Your task to perform on an android device: toggle priority inbox in the gmail app Image 0: 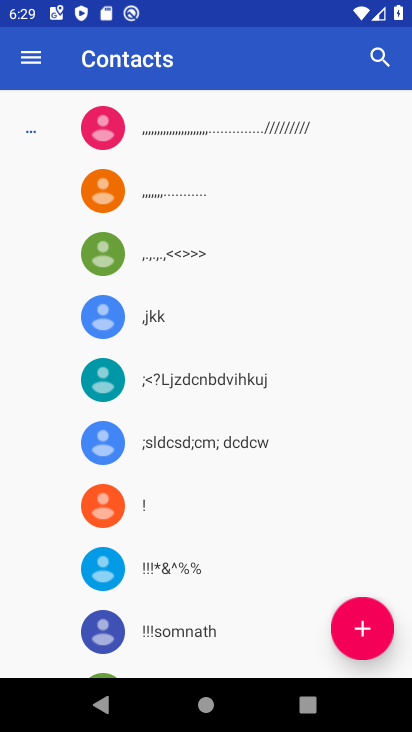
Step 0: press home button
Your task to perform on an android device: toggle priority inbox in the gmail app Image 1: 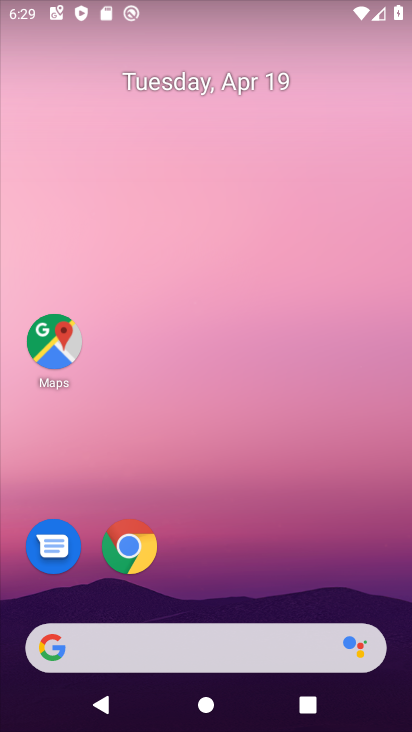
Step 1: drag from (269, 0) to (286, 414)
Your task to perform on an android device: toggle priority inbox in the gmail app Image 2: 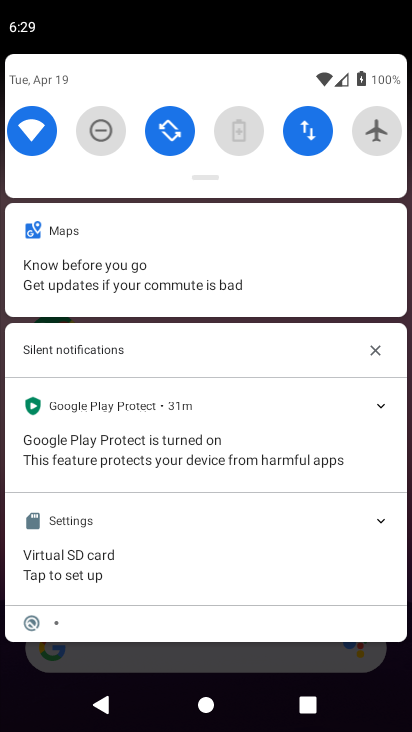
Step 2: drag from (241, 667) to (276, 0)
Your task to perform on an android device: toggle priority inbox in the gmail app Image 3: 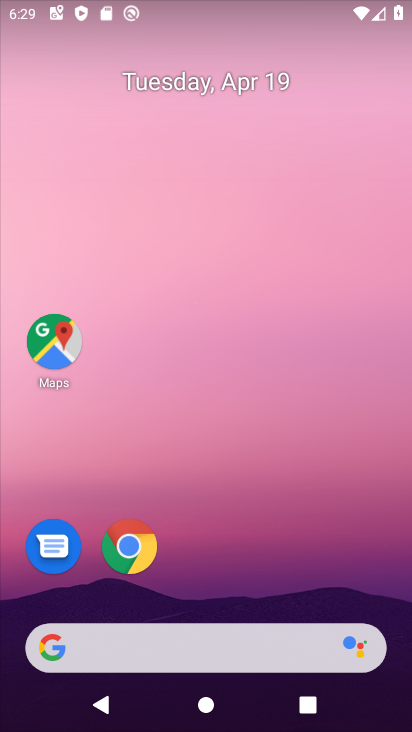
Step 3: drag from (227, 493) to (235, 41)
Your task to perform on an android device: toggle priority inbox in the gmail app Image 4: 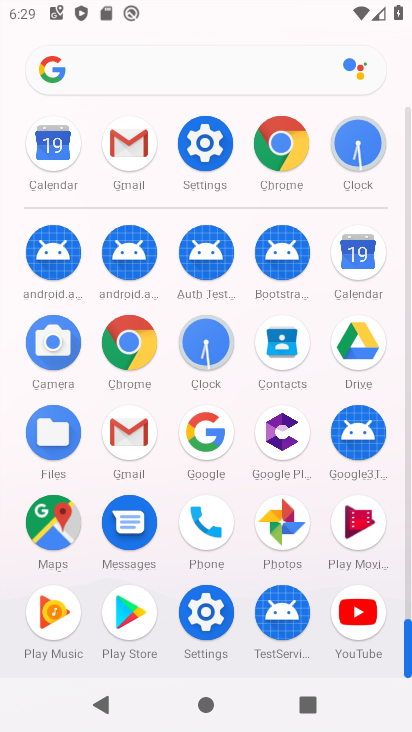
Step 4: click (139, 433)
Your task to perform on an android device: toggle priority inbox in the gmail app Image 5: 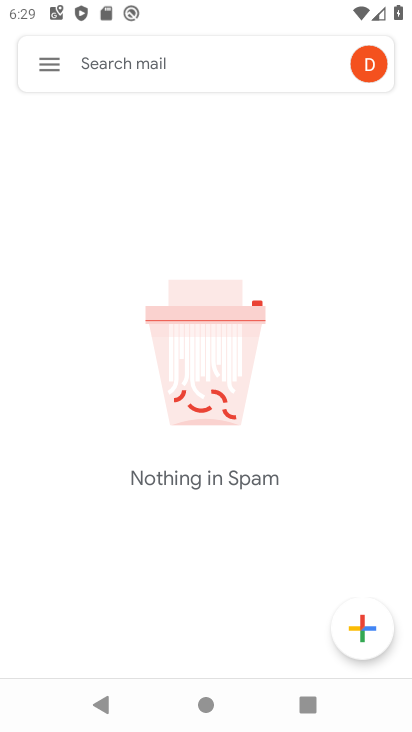
Step 5: click (52, 71)
Your task to perform on an android device: toggle priority inbox in the gmail app Image 6: 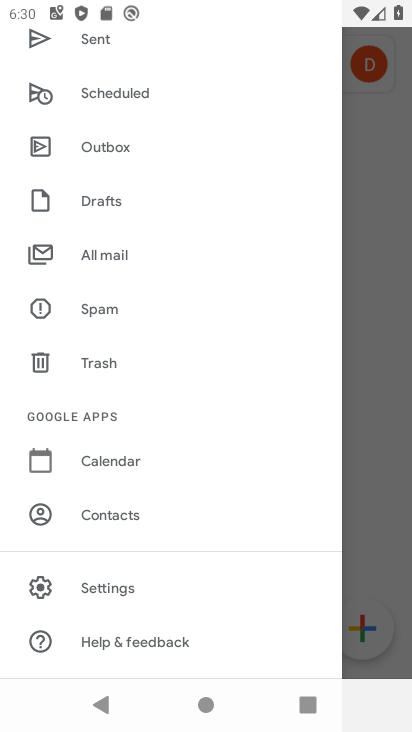
Step 6: click (115, 587)
Your task to perform on an android device: toggle priority inbox in the gmail app Image 7: 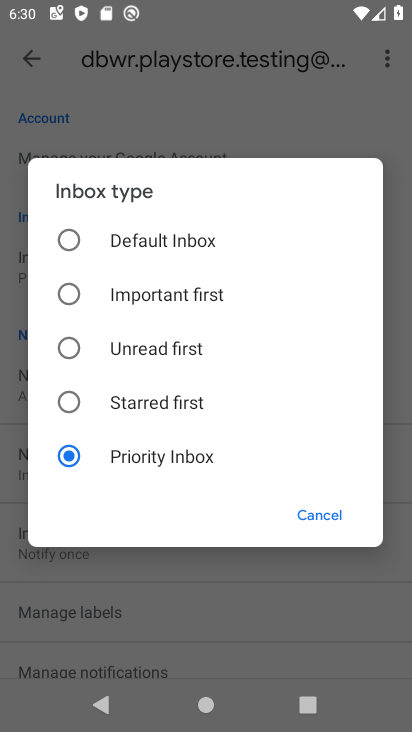
Step 7: task complete